Your task to perform on an android device: toggle priority inbox in the gmail app Image 0: 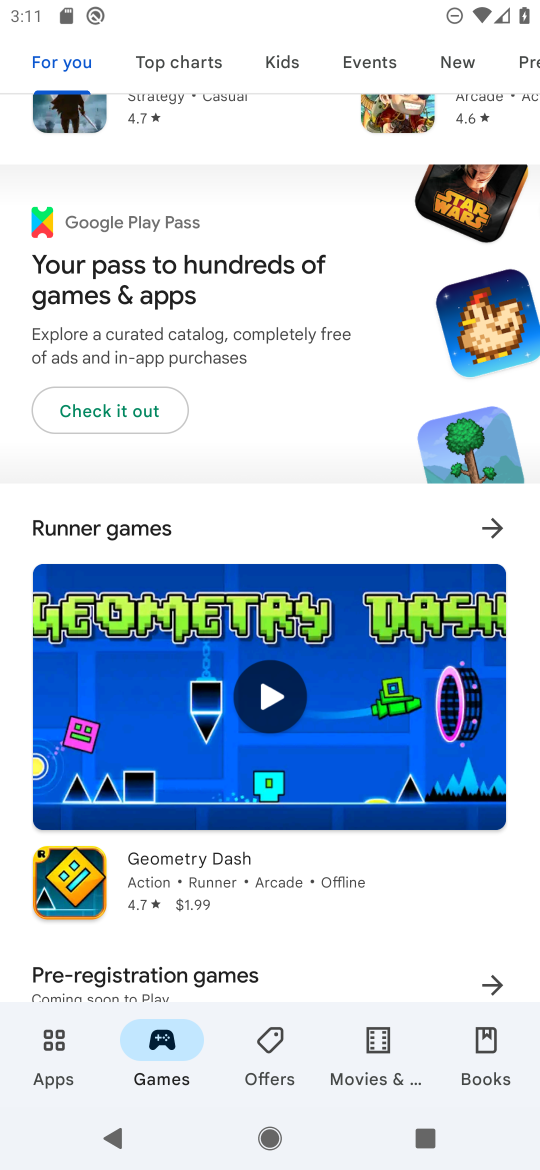
Step 0: press home button
Your task to perform on an android device: toggle priority inbox in the gmail app Image 1: 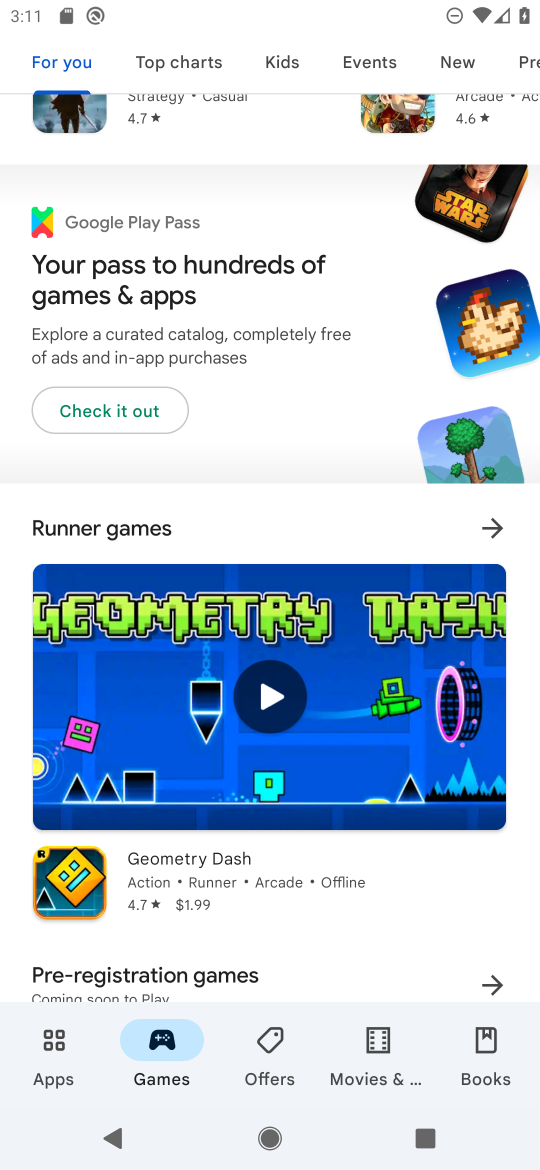
Step 1: press home button
Your task to perform on an android device: toggle priority inbox in the gmail app Image 2: 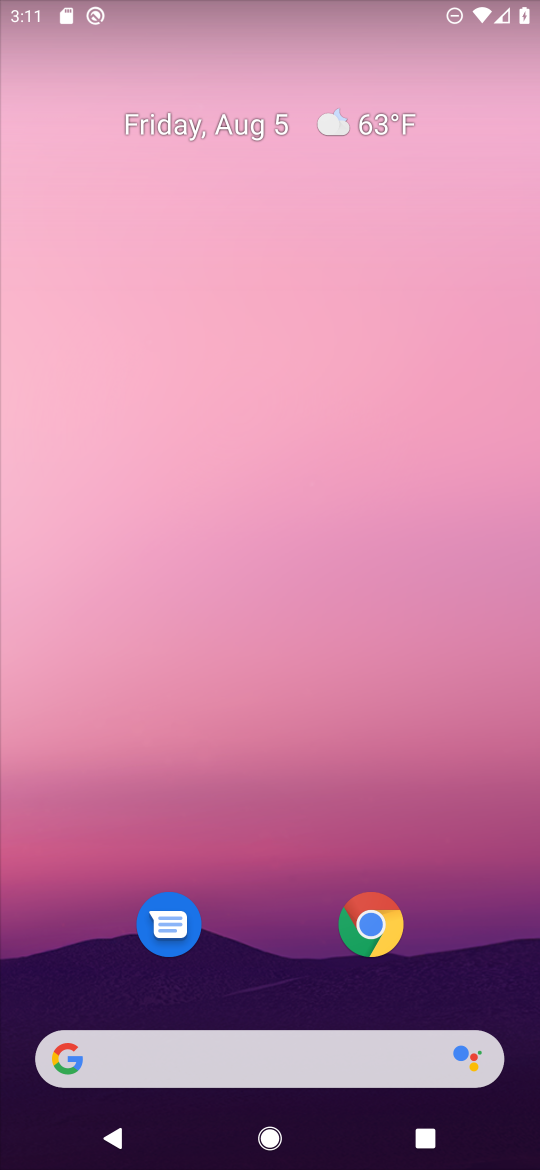
Step 2: drag from (274, 953) to (396, 215)
Your task to perform on an android device: toggle priority inbox in the gmail app Image 3: 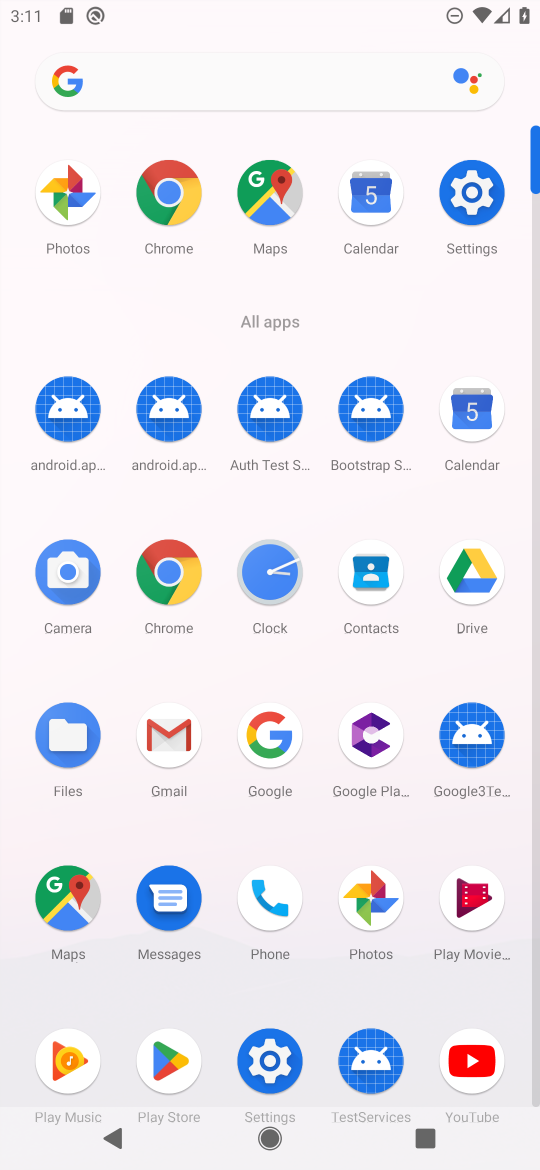
Step 3: click (170, 728)
Your task to perform on an android device: toggle priority inbox in the gmail app Image 4: 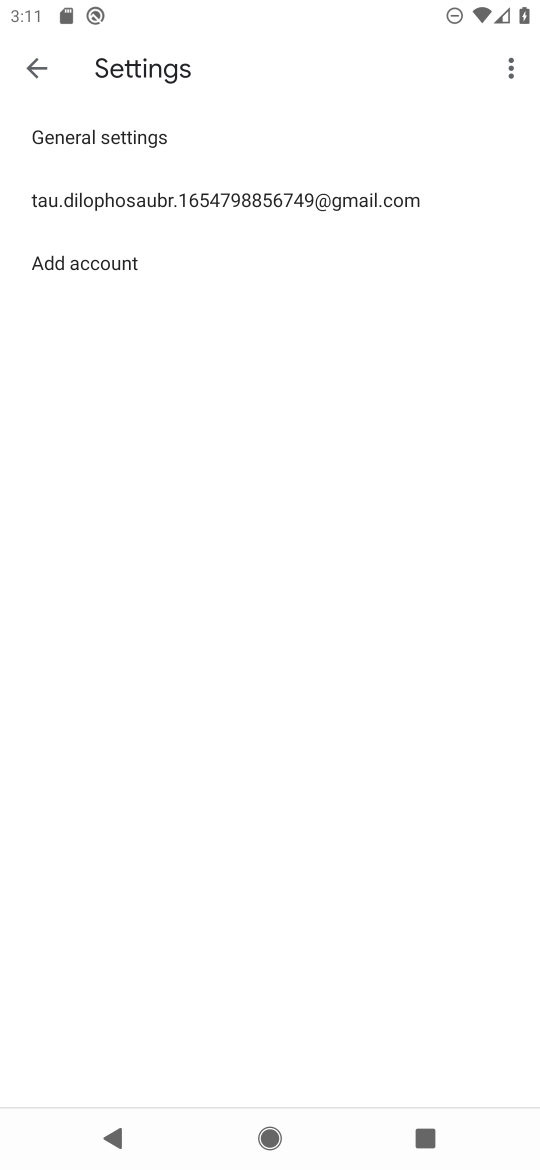
Step 4: click (169, 199)
Your task to perform on an android device: toggle priority inbox in the gmail app Image 5: 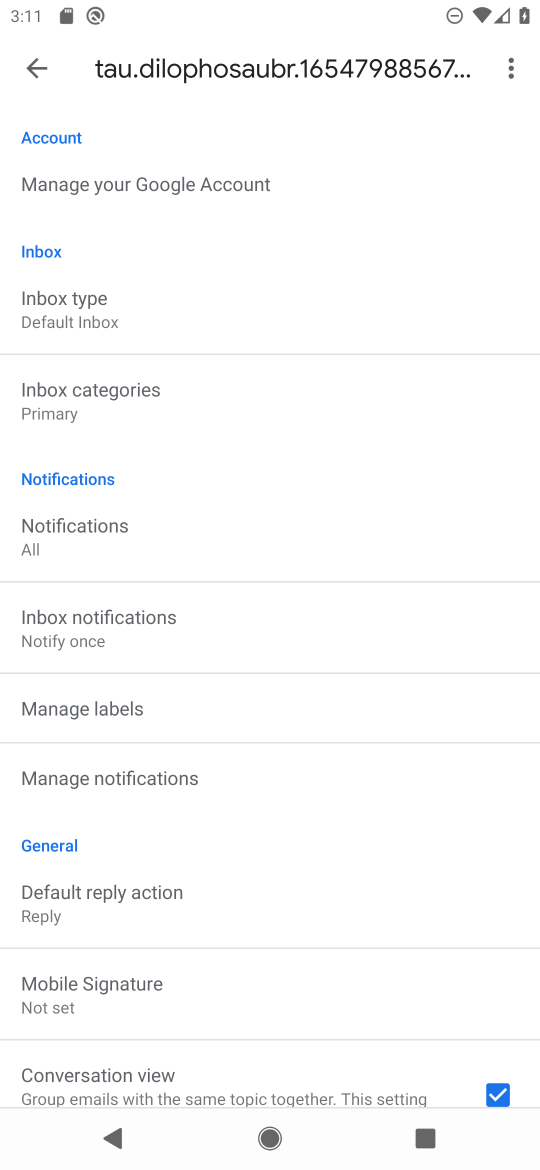
Step 5: click (73, 315)
Your task to perform on an android device: toggle priority inbox in the gmail app Image 6: 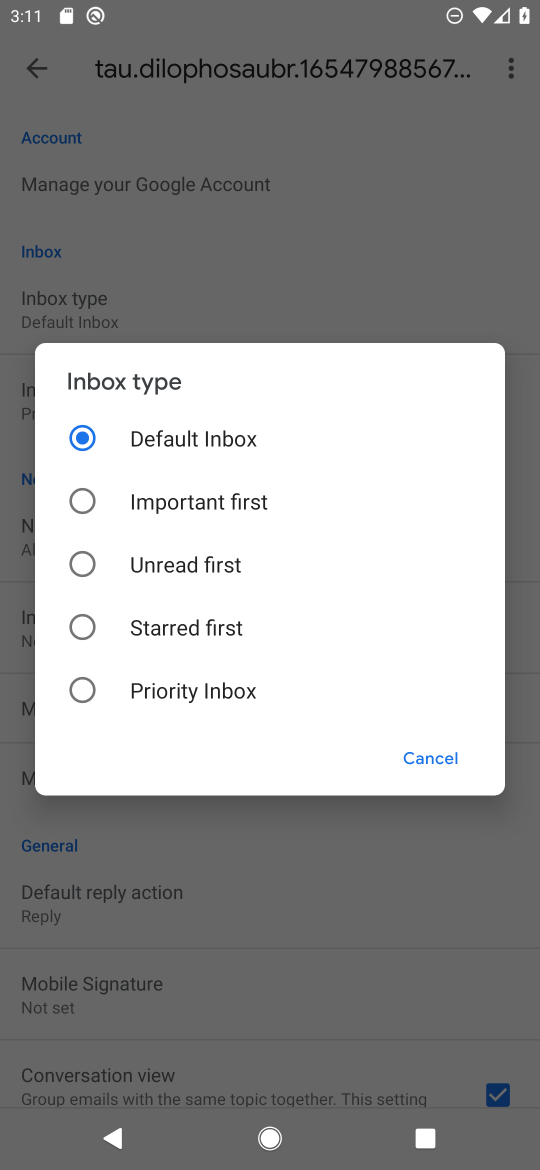
Step 6: click (121, 680)
Your task to perform on an android device: toggle priority inbox in the gmail app Image 7: 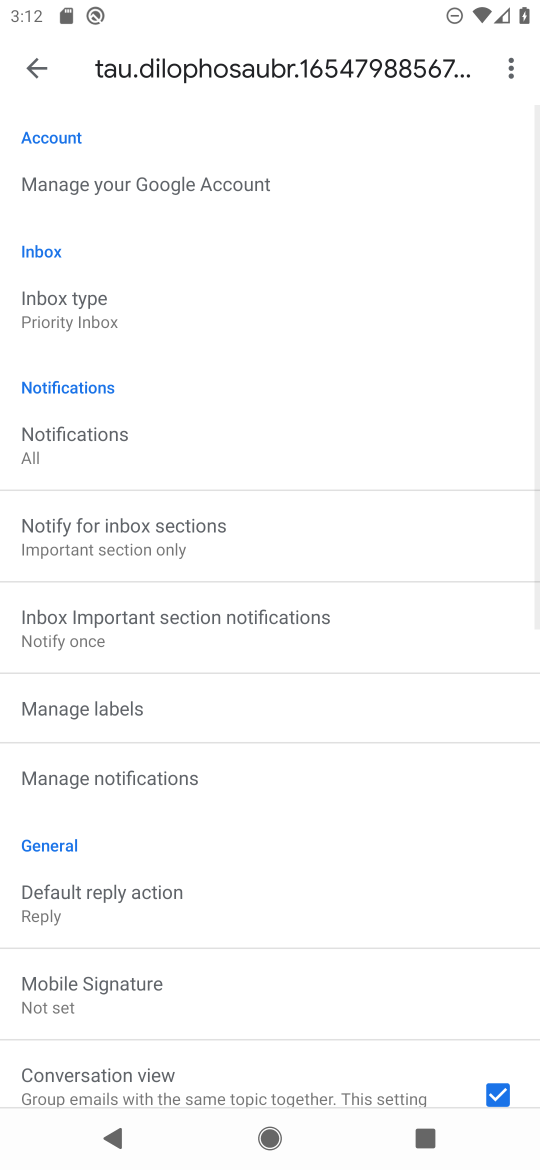
Step 7: task complete